Your task to perform on an android device: search for starred emails in the gmail app Image 0: 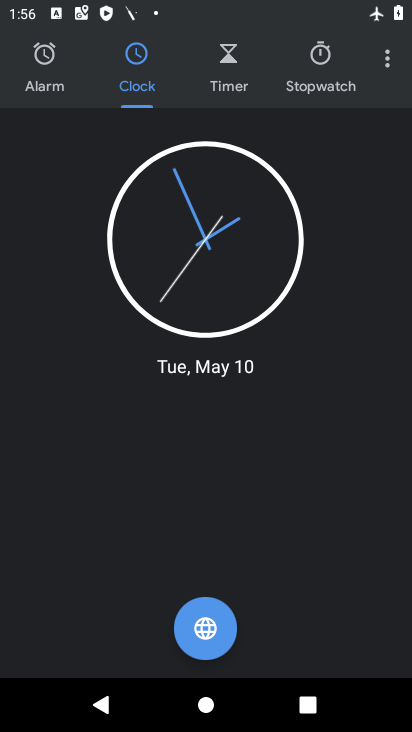
Step 0: press home button
Your task to perform on an android device: search for starred emails in the gmail app Image 1: 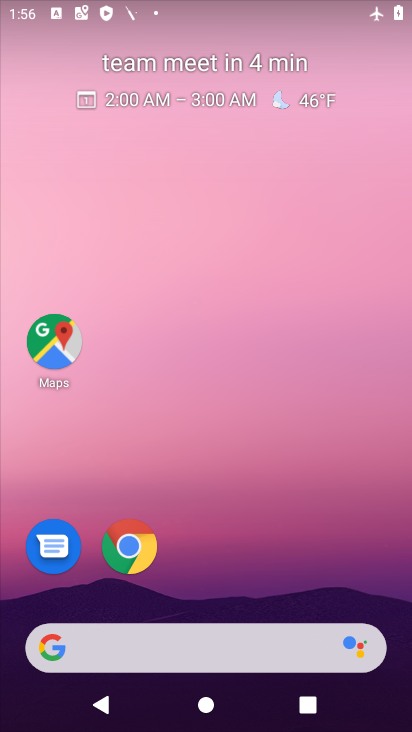
Step 1: drag from (397, 627) to (308, 167)
Your task to perform on an android device: search for starred emails in the gmail app Image 2: 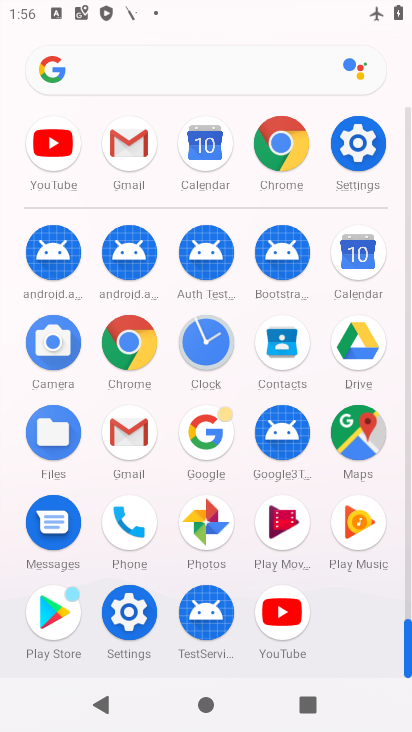
Step 2: click (127, 432)
Your task to perform on an android device: search for starred emails in the gmail app Image 3: 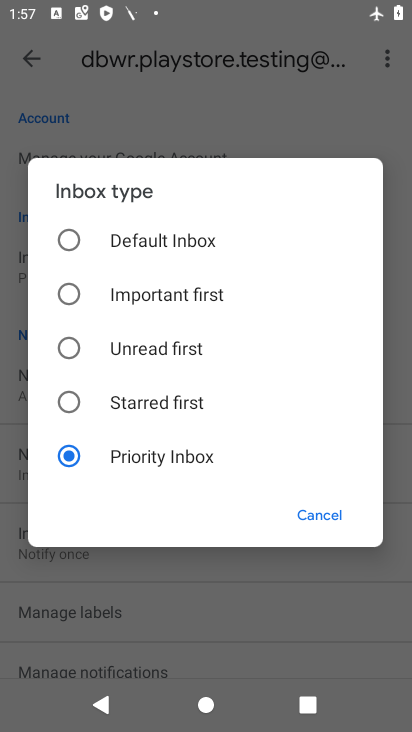
Step 3: click (317, 515)
Your task to perform on an android device: search for starred emails in the gmail app Image 4: 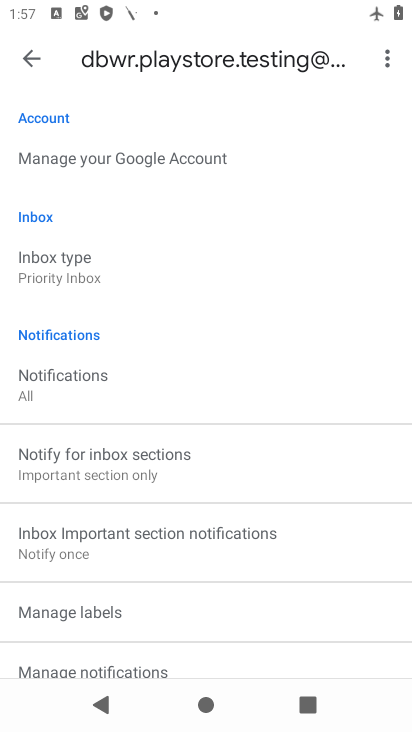
Step 4: press back button
Your task to perform on an android device: search for starred emails in the gmail app Image 5: 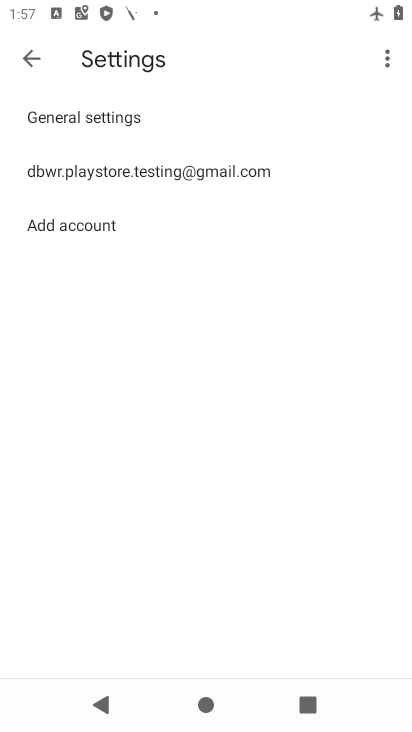
Step 5: press back button
Your task to perform on an android device: search for starred emails in the gmail app Image 6: 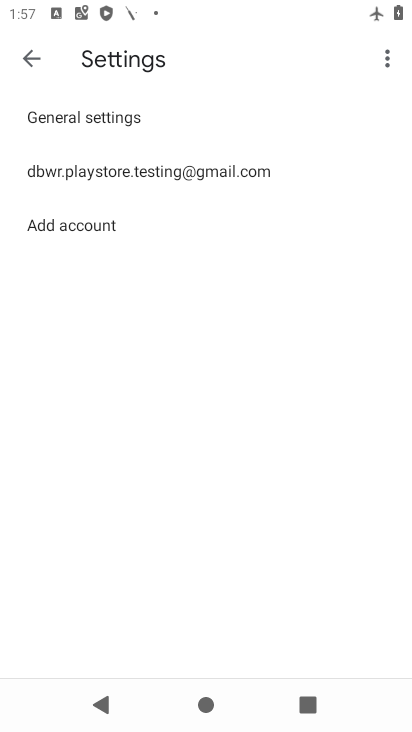
Step 6: press back button
Your task to perform on an android device: search for starred emails in the gmail app Image 7: 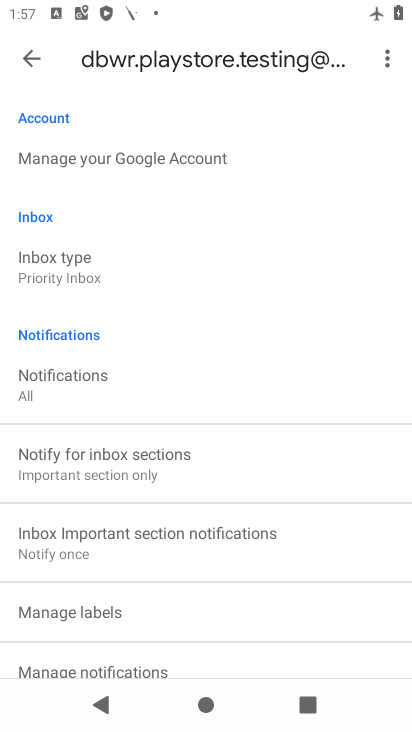
Step 7: press back button
Your task to perform on an android device: search for starred emails in the gmail app Image 8: 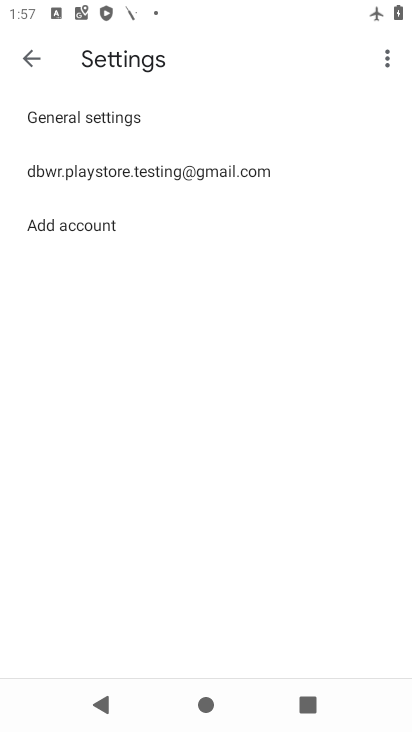
Step 8: press back button
Your task to perform on an android device: search for starred emails in the gmail app Image 9: 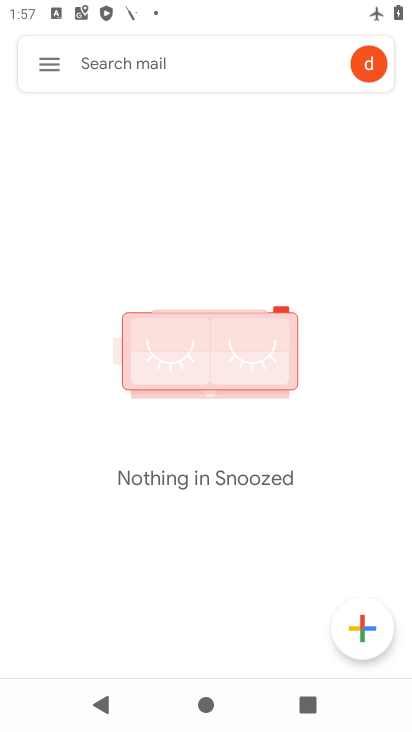
Step 9: click (35, 65)
Your task to perform on an android device: search for starred emails in the gmail app Image 10: 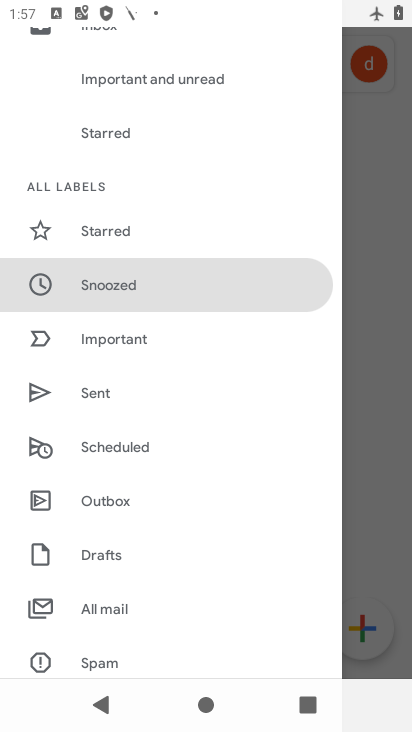
Step 10: click (95, 225)
Your task to perform on an android device: search for starred emails in the gmail app Image 11: 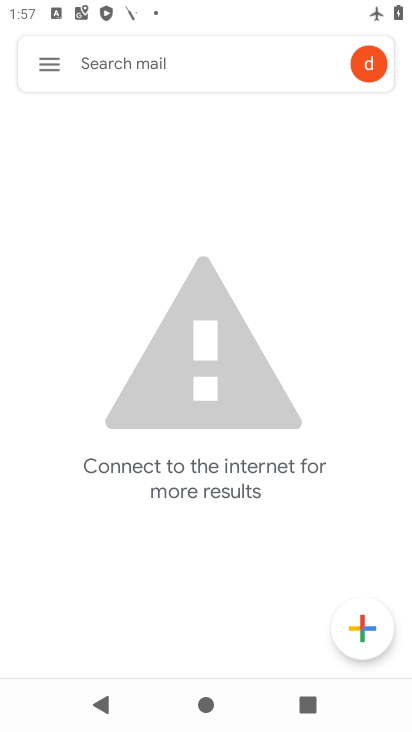
Step 11: task complete